Your task to perform on an android device: toggle location history Image 0: 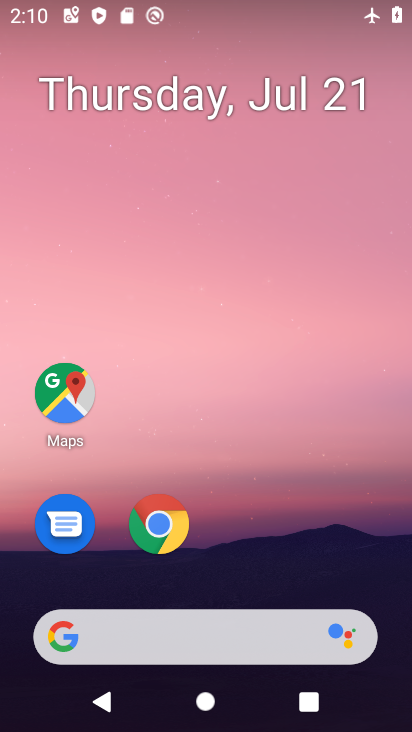
Step 0: drag from (271, 570) to (301, 79)
Your task to perform on an android device: toggle location history Image 1: 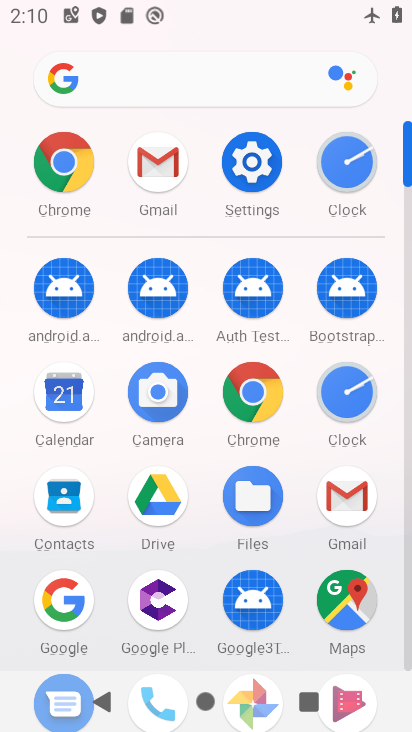
Step 1: click (252, 168)
Your task to perform on an android device: toggle location history Image 2: 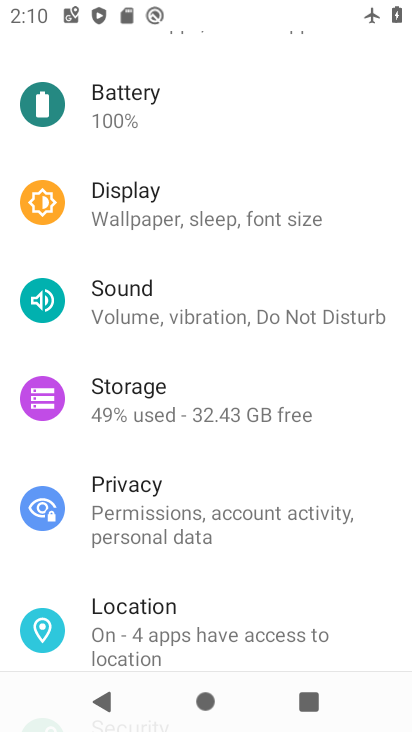
Step 2: drag from (238, 580) to (271, 111)
Your task to perform on an android device: toggle location history Image 3: 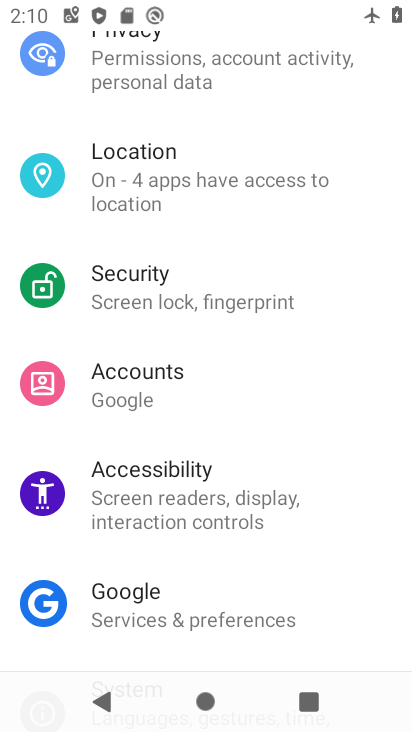
Step 3: drag from (272, 150) to (319, 668)
Your task to perform on an android device: toggle location history Image 4: 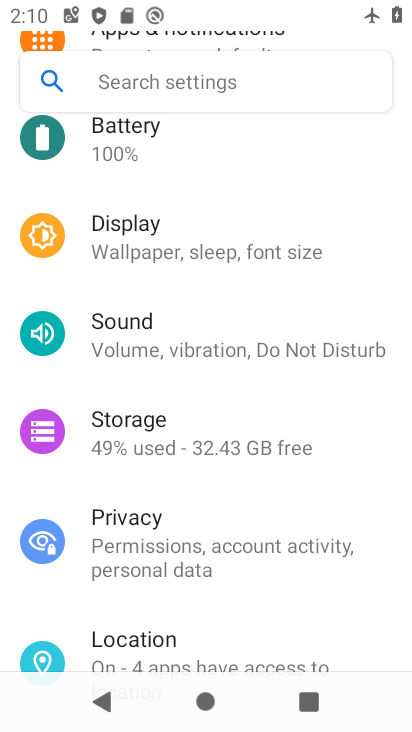
Step 4: drag from (242, 187) to (259, 586)
Your task to perform on an android device: toggle location history Image 5: 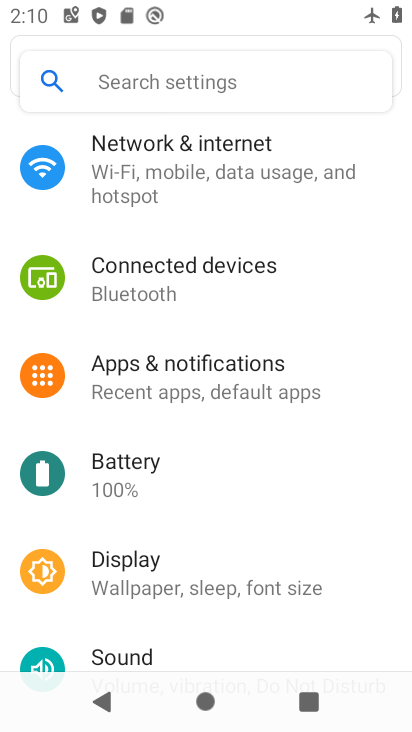
Step 5: click (230, 179)
Your task to perform on an android device: toggle location history Image 6: 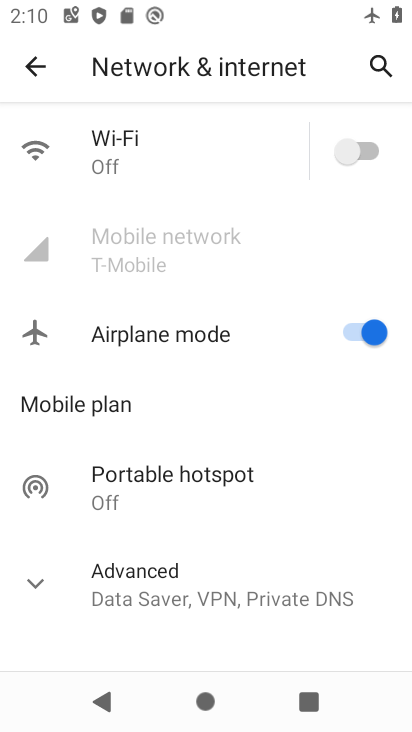
Step 6: click (363, 330)
Your task to perform on an android device: toggle location history Image 7: 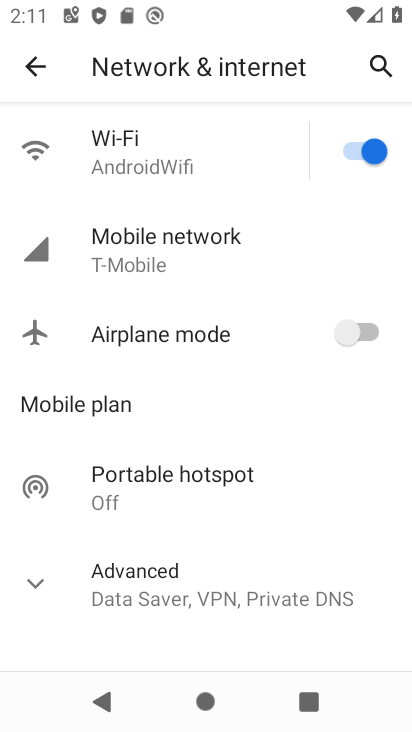
Step 7: click (29, 55)
Your task to perform on an android device: toggle location history Image 8: 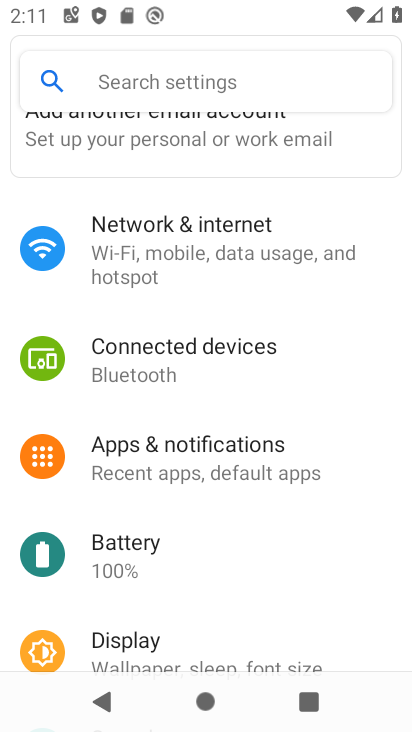
Step 8: drag from (174, 552) to (197, 106)
Your task to perform on an android device: toggle location history Image 9: 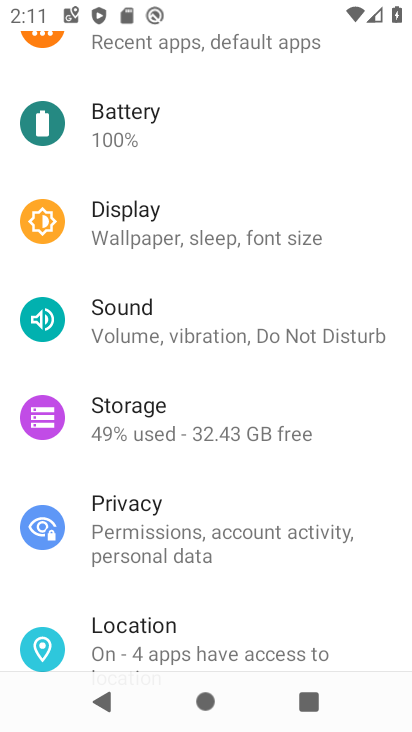
Step 9: drag from (228, 572) to (251, 115)
Your task to perform on an android device: toggle location history Image 10: 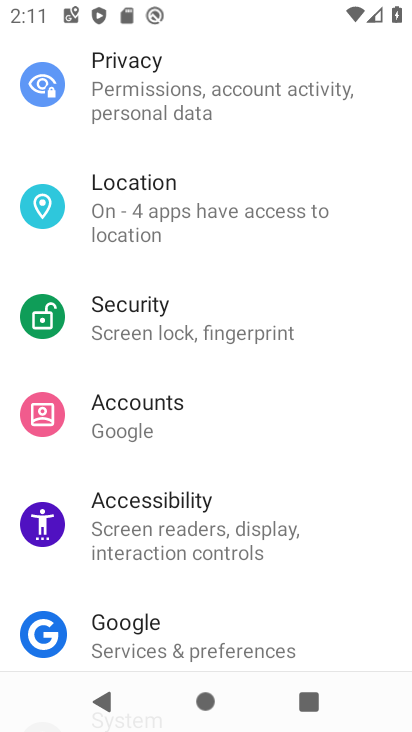
Step 10: click (203, 202)
Your task to perform on an android device: toggle location history Image 11: 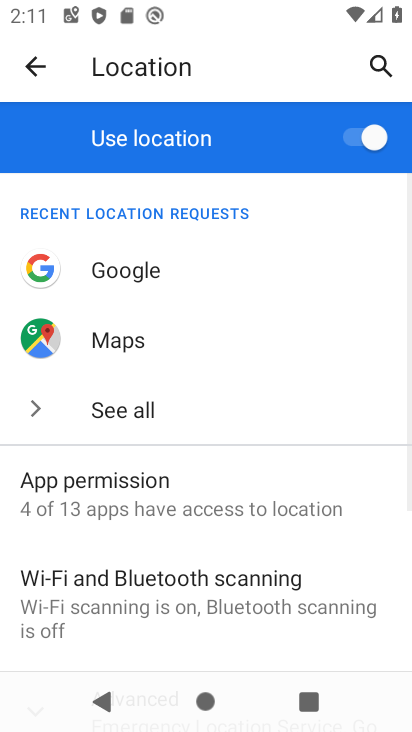
Step 11: drag from (273, 539) to (311, 291)
Your task to perform on an android device: toggle location history Image 12: 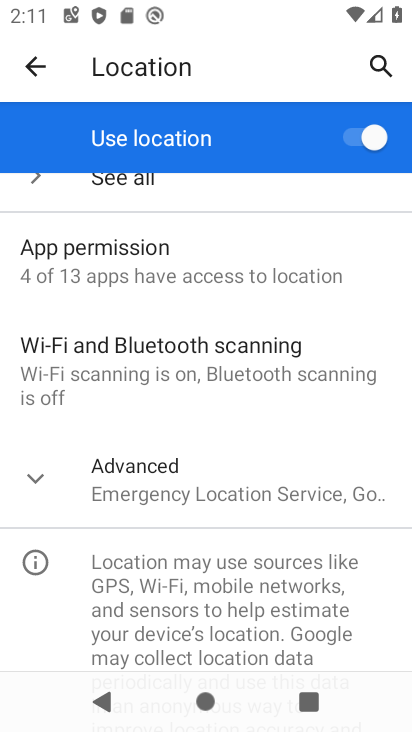
Step 12: click (213, 269)
Your task to perform on an android device: toggle location history Image 13: 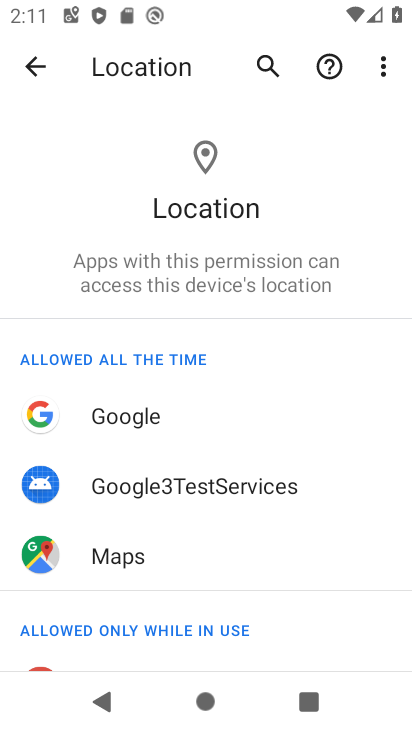
Step 13: drag from (219, 554) to (228, 97)
Your task to perform on an android device: toggle location history Image 14: 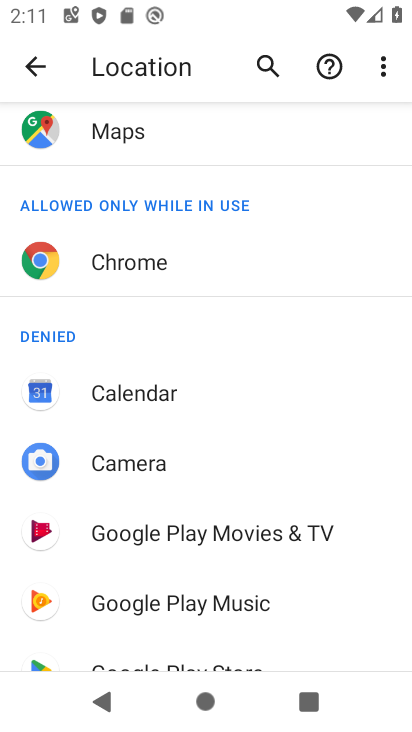
Step 14: click (36, 61)
Your task to perform on an android device: toggle location history Image 15: 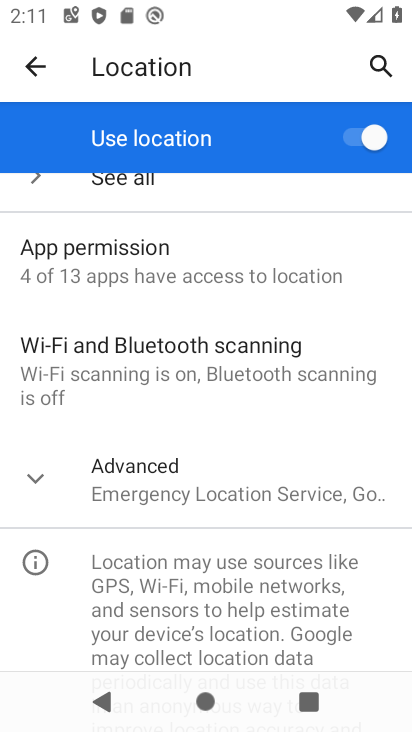
Step 15: click (34, 475)
Your task to perform on an android device: toggle location history Image 16: 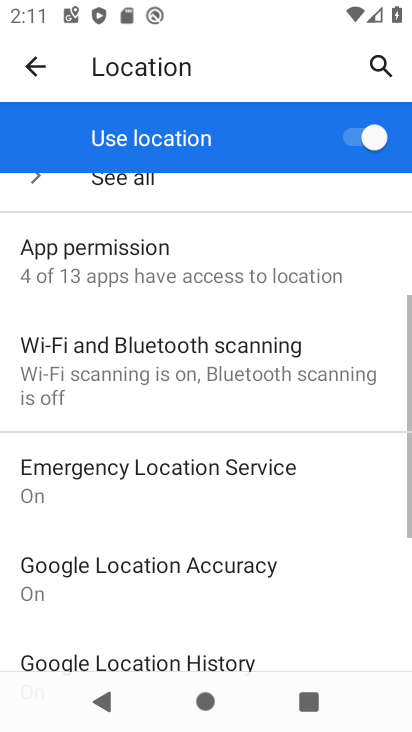
Step 16: drag from (224, 579) to (241, 244)
Your task to perform on an android device: toggle location history Image 17: 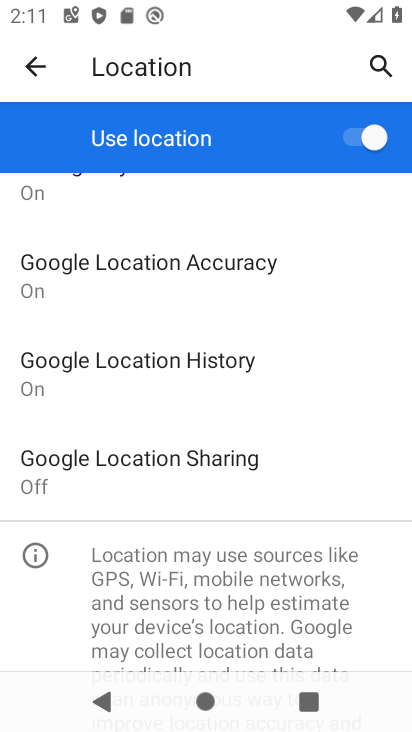
Step 17: click (173, 380)
Your task to perform on an android device: toggle location history Image 18: 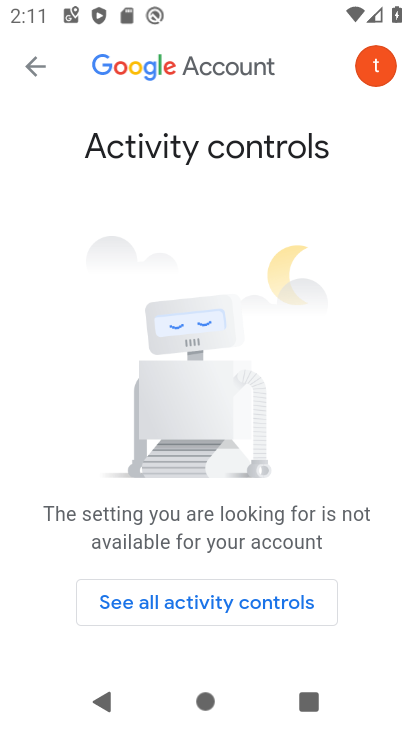
Step 18: click (259, 593)
Your task to perform on an android device: toggle location history Image 19: 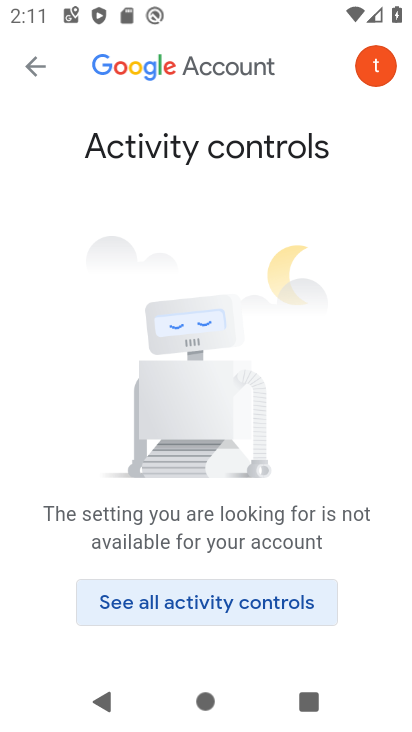
Step 19: click (259, 595)
Your task to perform on an android device: toggle location history Image 20: 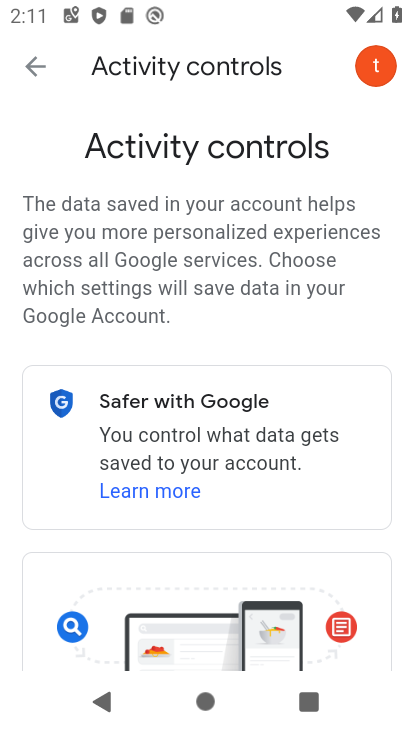
Step 20: drag from (259, 589) to (258, 136)
Your task to perform on an android device: toggle location history Image 21: 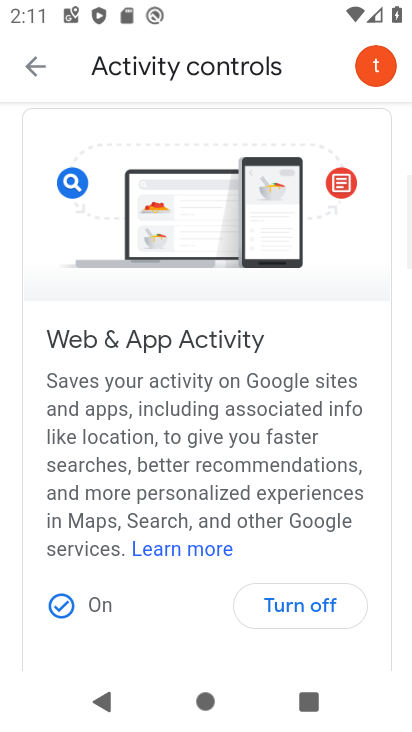
Step 21: drag from (228, 458) to (223, 236)
Your task to perform on an android device: toggle location history Image 22: 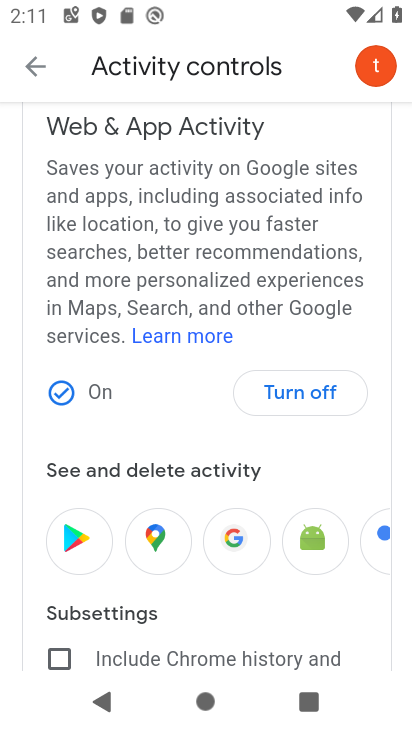
Step 22: click (301, 392)
Your task to perform on an android device: toggle location history Image 23: 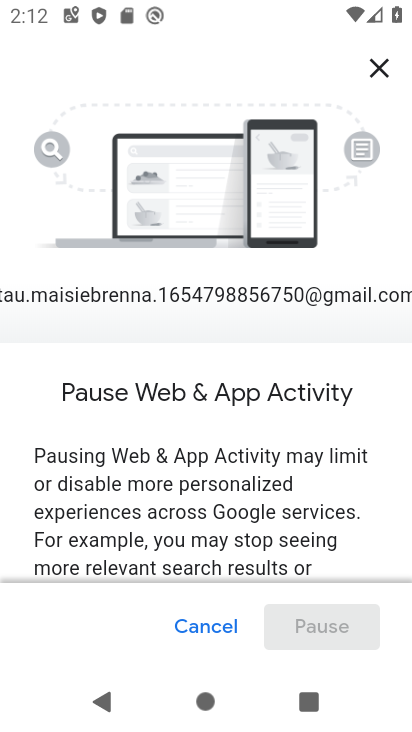
Step 23: drag from (276, 485) to (268, 179)
Your task to perform on an android device: toggle location history Image 24: 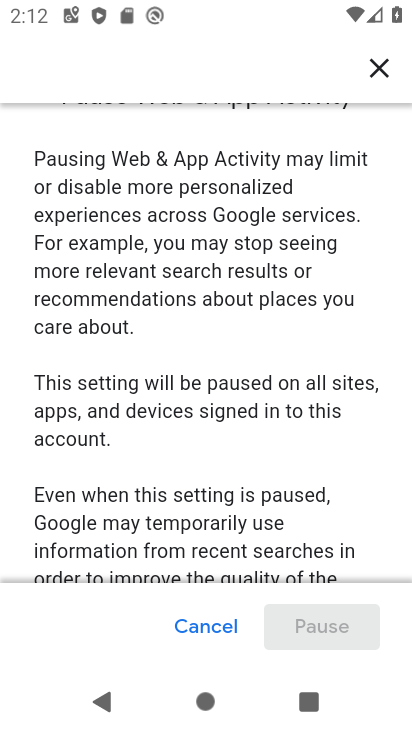
Step 24: drag from (257, 427) to (258, 178)
Your task to perform on an android device: toggle location history Image 25: 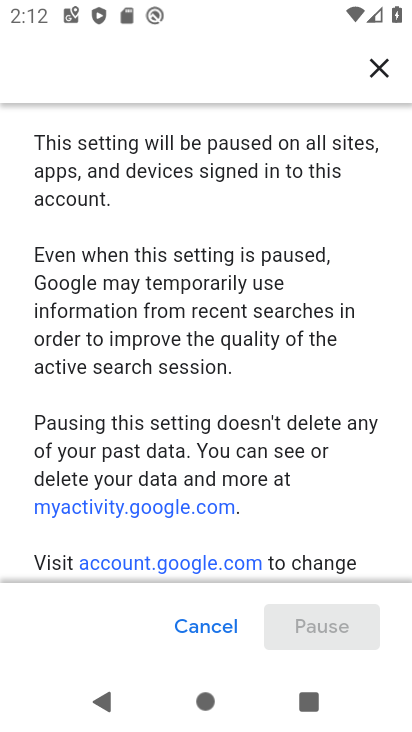
Step 25: drag from (233, 507) to (248, 114)
Your task to perform on an android device: toggle location history Image 26: 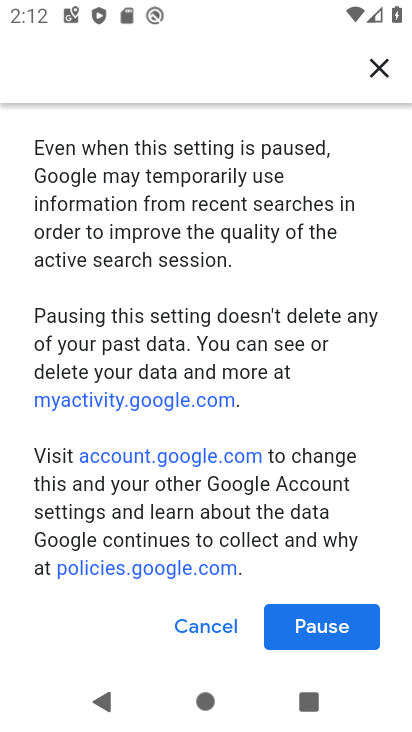
Step 26: click (325, 633)
Your task to perform on an android device: toggle location history Image 27: 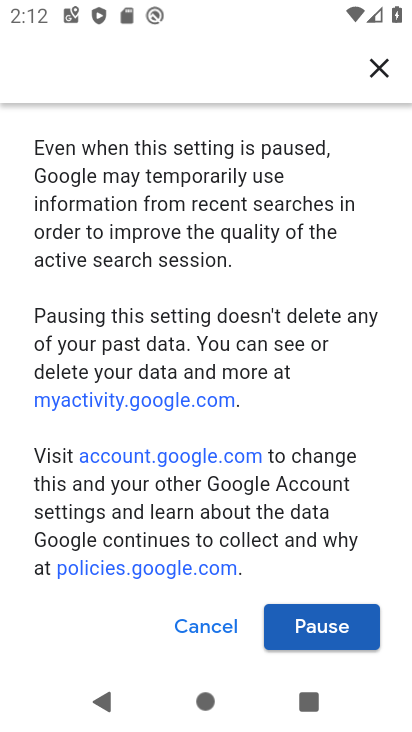
Step 27: click (332, 622)
Your task to perform on an android device: toggle location history Image 28: 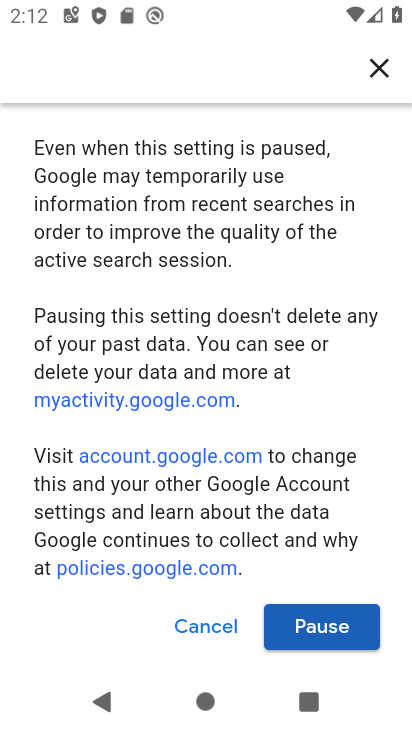
Step 28: click (336, 629)
Your task to perform on an android device: toggle location history Image 29: 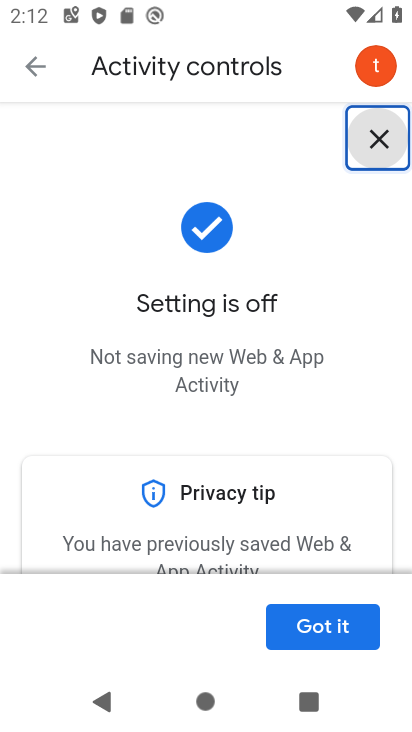
Step 29: click (336, 629)
Your task to perform on an android device: toggle location history Image 30: 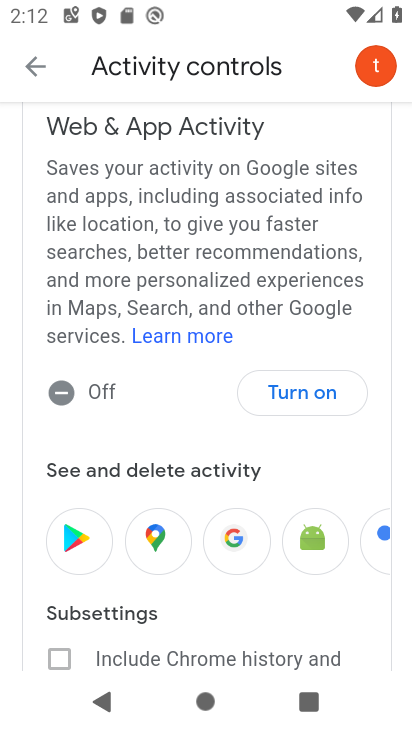
Step 30: task complete